Your task to perform on an android device: Go to Yahoo.com Image 0: 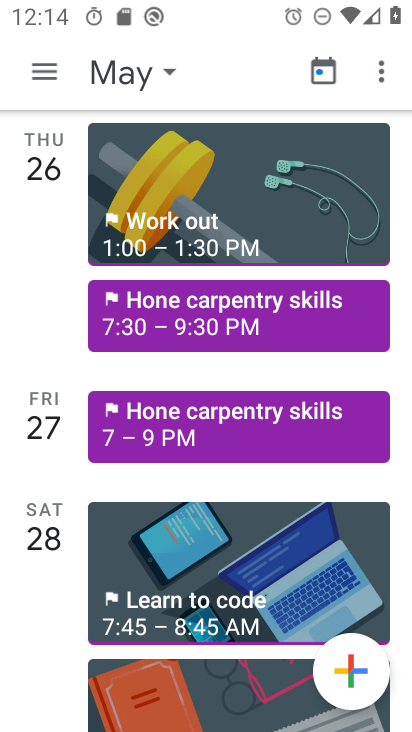
Step 0: click (398, 338)
Your task to perform on an android device: Go to Yahoo.com Image 1: 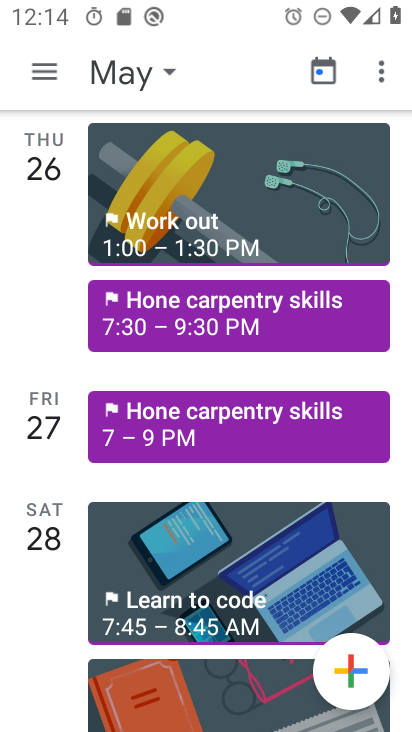
Step 1: press back button
Your task to perform on an android device: Go to Yahoo.com Image 2: 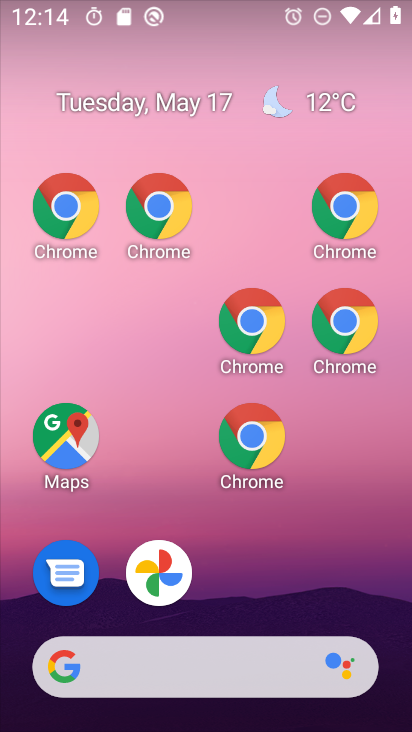
Step 2: drag from (345, 666) to (239, 3)
Your task to perform on an android device: Go to Yahoo.com Image 3: 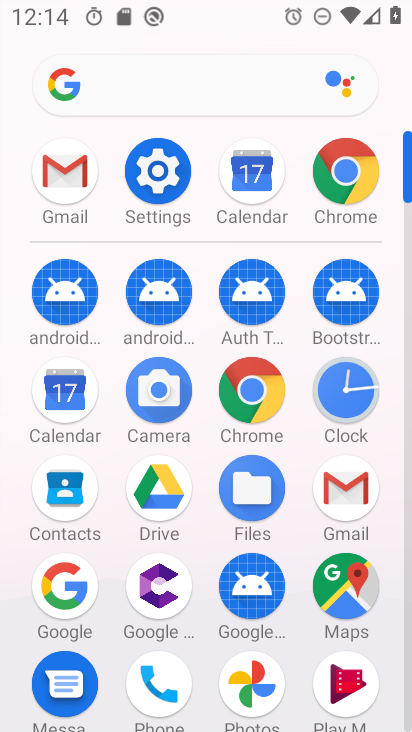
Step 3: click (351, 169)
Your task to perform on an android device: Go to Yahoo.com Image 4: 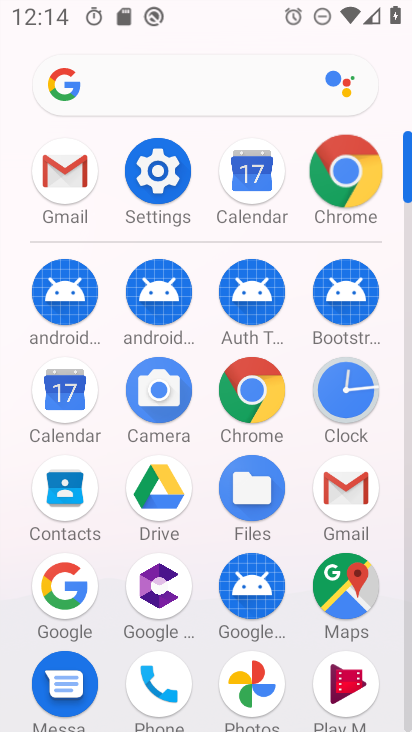
Step 4: click (351, 169)
Your task to perform on an android device: Go to Yahoo.com Image 5: 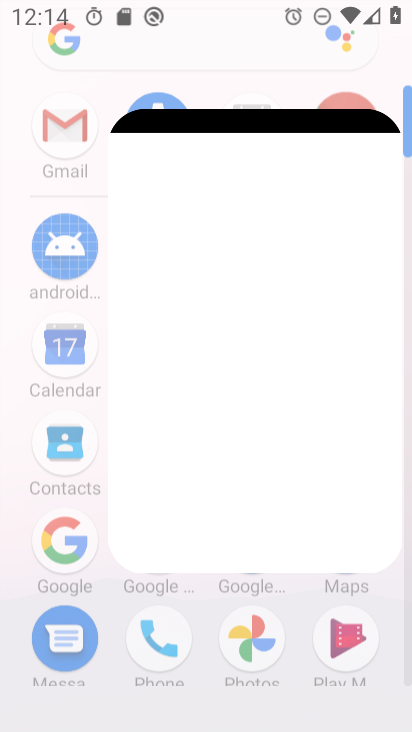
Step 5: click (351, 169)
Your task to perform on an android device: Go to Yahoo.com Image 6: 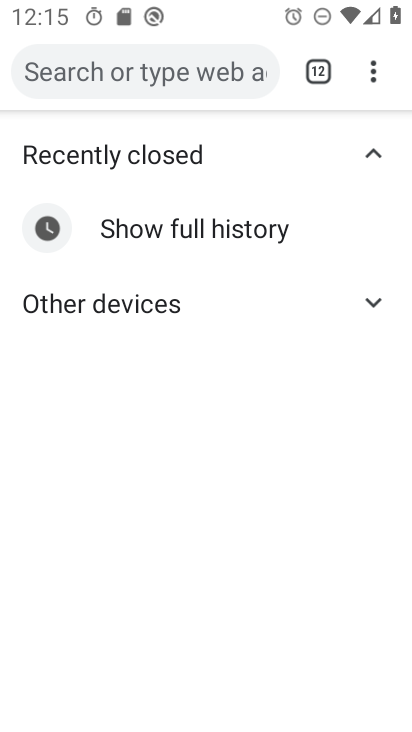
Step 6: drag from (368, 71) to (115, 138)
Your task to perform on an android device: Go to Yahoo.com Image 7: 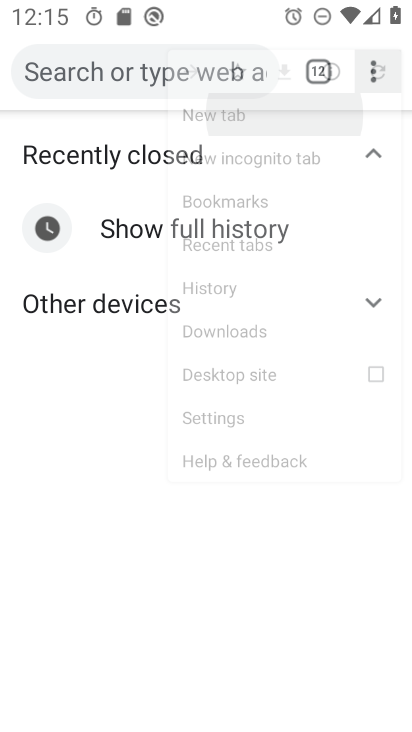
Step 7: click (114, 138)
Your task to perform on an android device: Go to Yahoo.com Image 8: 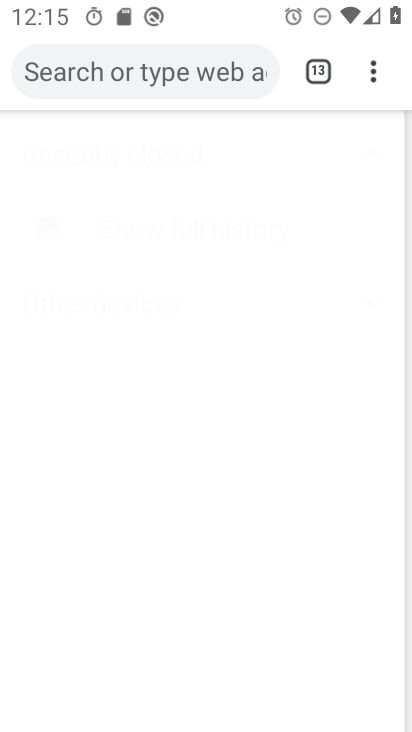
Step 8: click (114, 138)
Your task to perform on an android device: Go to Yahoo.com Image 9: 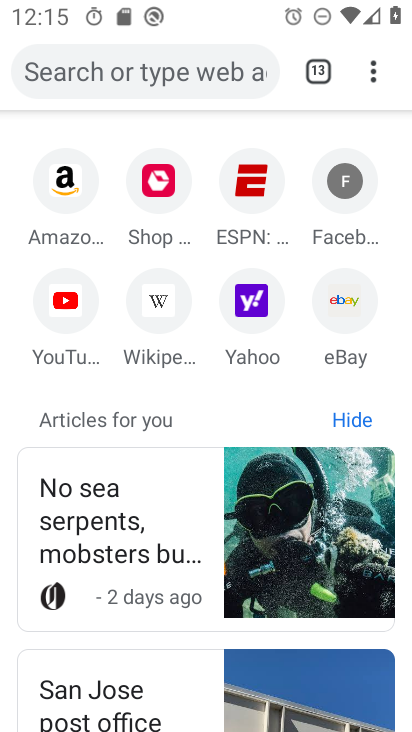
Step 9: click (237, 305)
Your task to perform on an android device: Go to Yahoo.com Image 10: 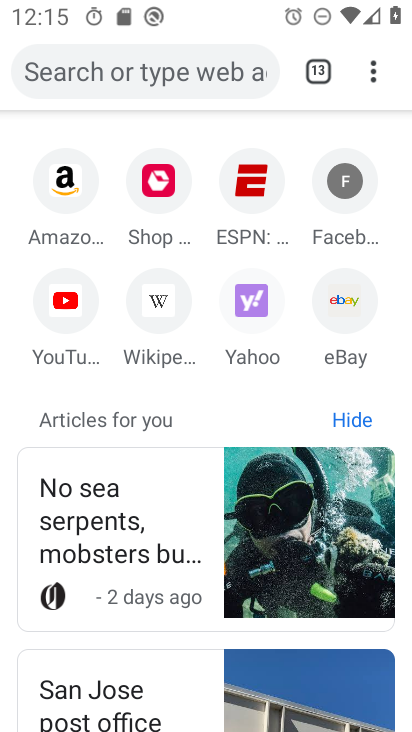
Step 10: click (236, 304)
Your task to perform on an android device: Go to Yahoo.com Image 11: 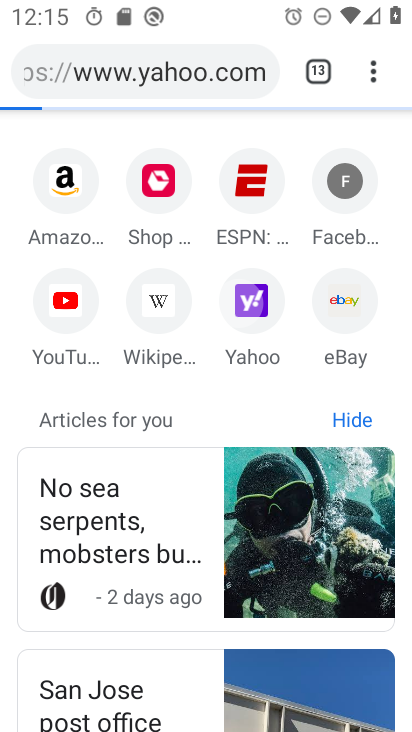
Step 11: click (237, 303)
Your task to perform on an android device: Go to Yahoo.com Image 12: 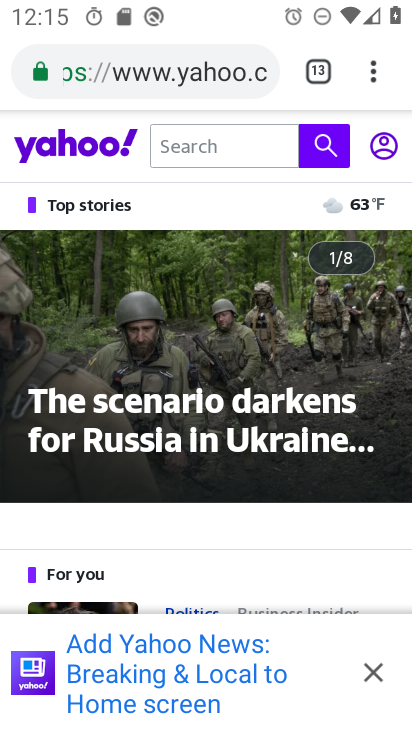
Step 12: task complete